Your task to perform on an android device: change text size in settings app Image 0: 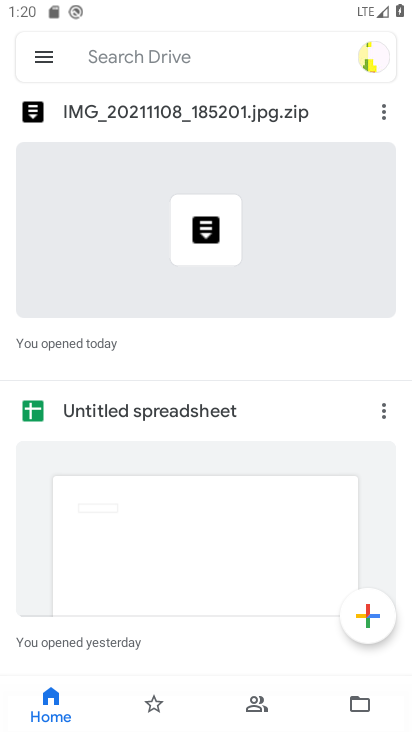
Step 0: drag from (232, 593) to (289, 372)
Your task to perform on an android device: change text size in settings app Image 1: 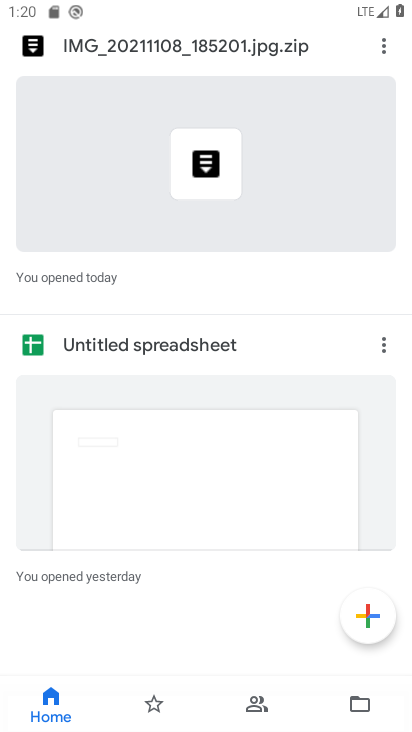
Step 1: drag from (240, 255) to (325, 569)
Your task to perform on an android device: change text size in settings app Image 2: 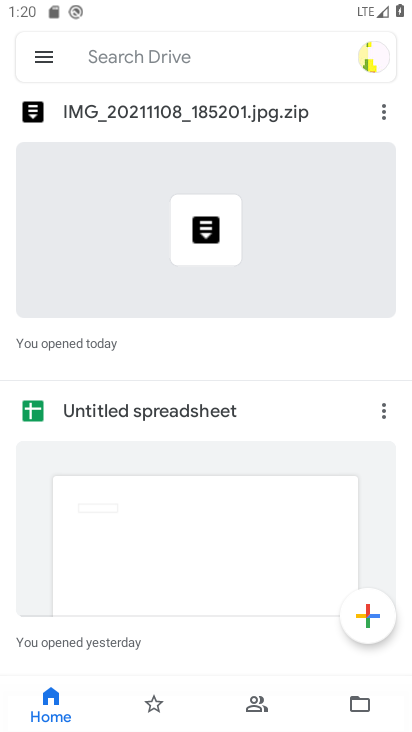
Step 2: press home button
Your task to perform on an android device: change text size in settings app Image 3: 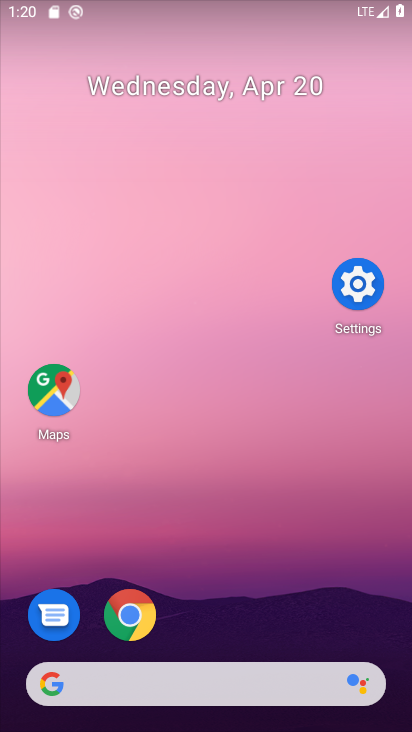
Step 3: click (356, 293)
Your task to perform on an android device: change text size in settings app Image 4: 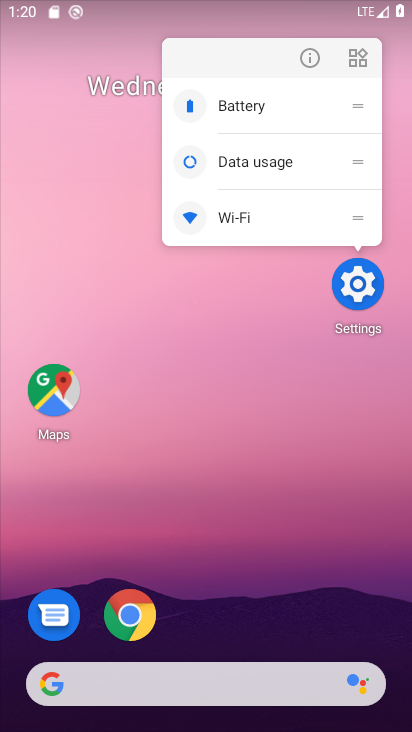
Step 4: click (318, 65)
Your task to perform on an android device: change text size in settings app Image 5: 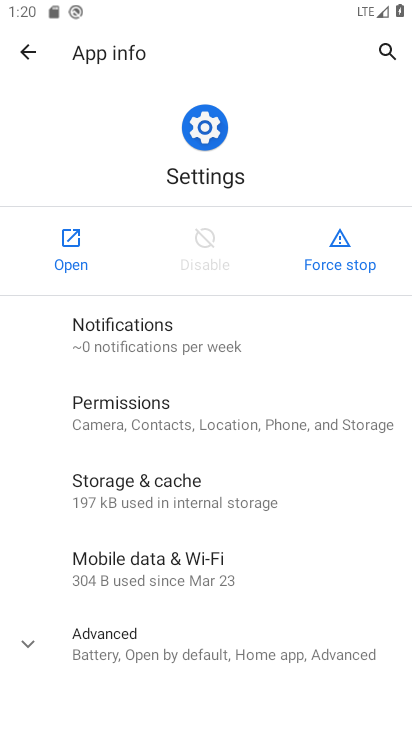
Step 5: click (68, 239)
Your task to perform on an android device: change text size in settings app Image 6: 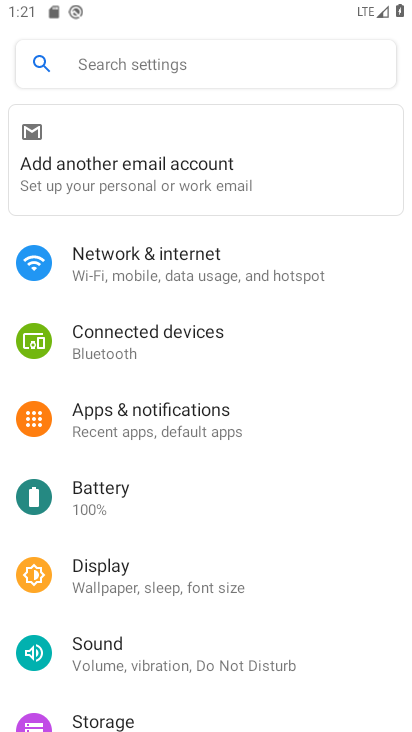
Step 6: drag from (212, 540) to (279, 249)
Your task to perform on an android device: change text size in settings app Image 7: 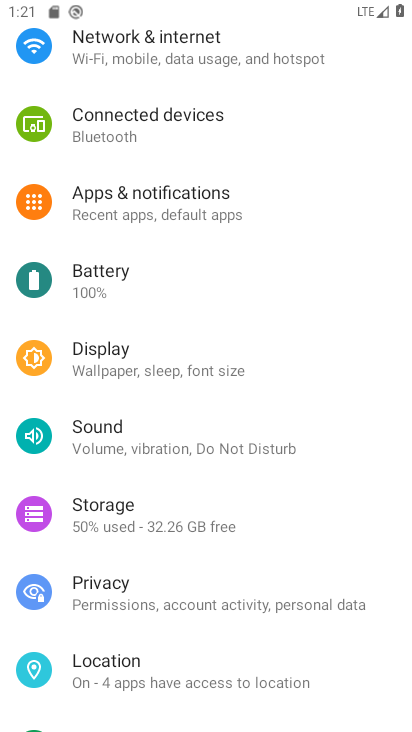
Step 7: click (140, 374)
Your task to perform on an android device: change text size in settings app Image 8: 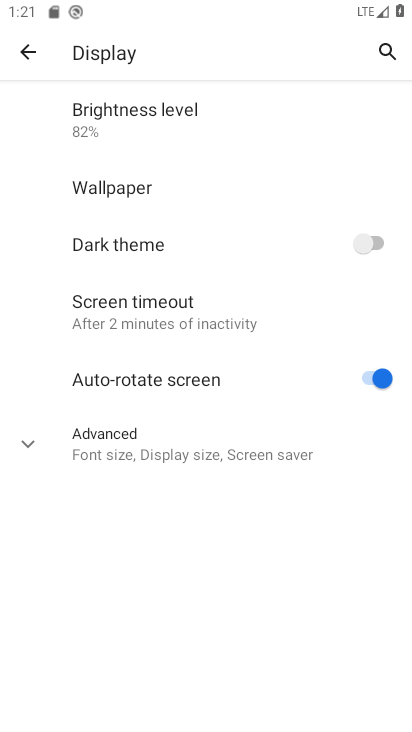
Step 8: click (184, 315)
Your task to perform on an android device: change text size in settings app Image 9: 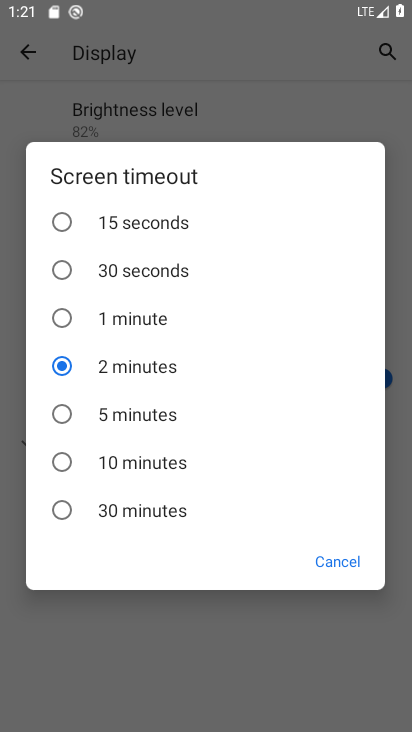
Step 9: click (340, 550)
Your task to perform on an android device: change text size in settings app Image 10: 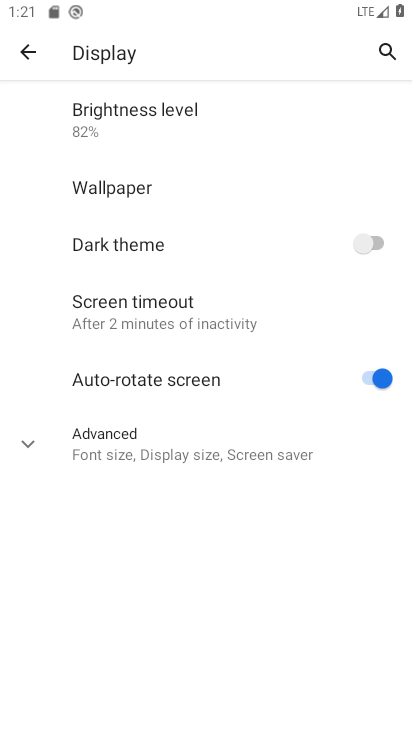
Step 10: click (195, 454)
Your task to perform on an android device: change text size in settings app Image 11: 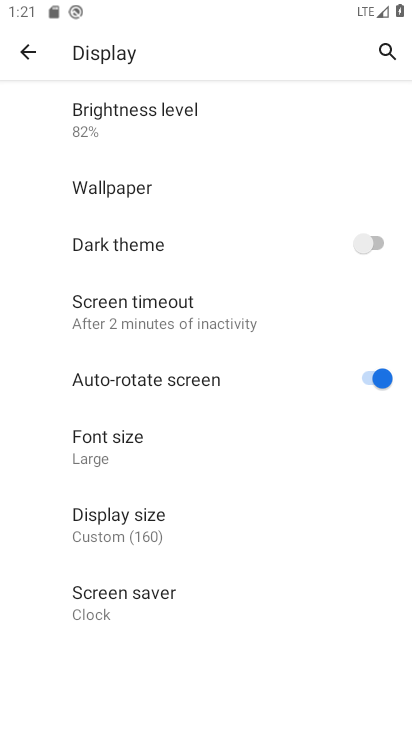
Step 11: click (187, 431)
Your task to perform on an android device: change text size in settings app Image 12: 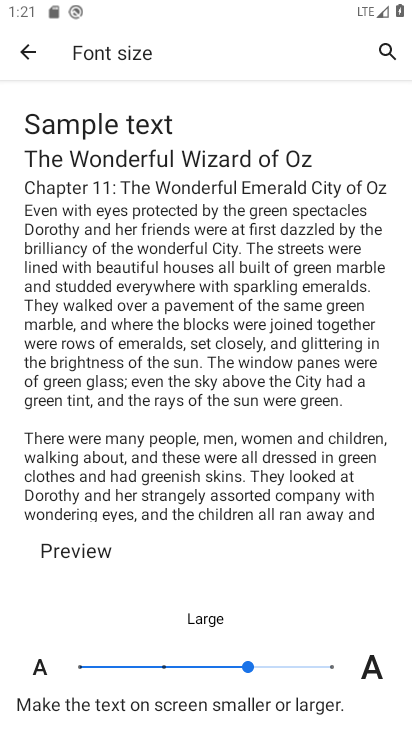
Step 12: drag from (199, 525) to (244, 375)
Your task to perform on an android device: change text size in settings app Image 13: 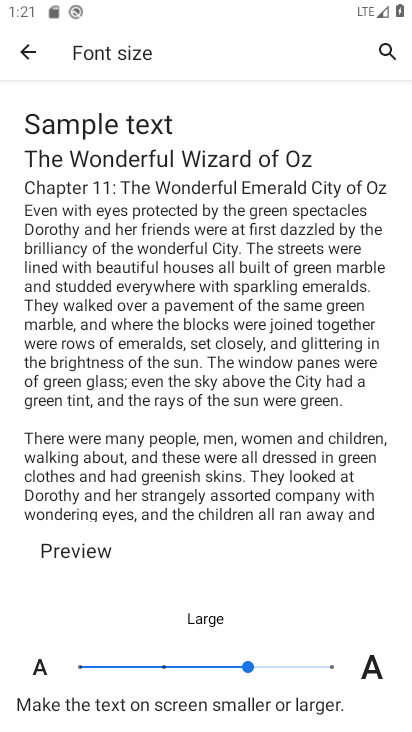
Step 13: click (311, 673)
Your task to perform on an android device: change text size in settings app Image 14: 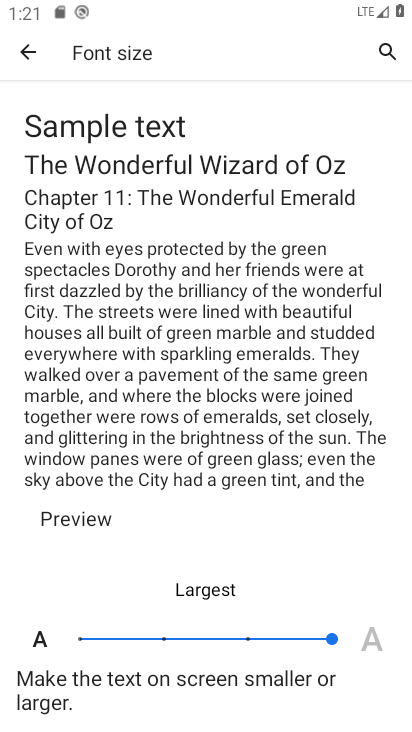
Step 14: task complete